Your task to perform on an android device: turn pop-ups on in chrome Image 0: 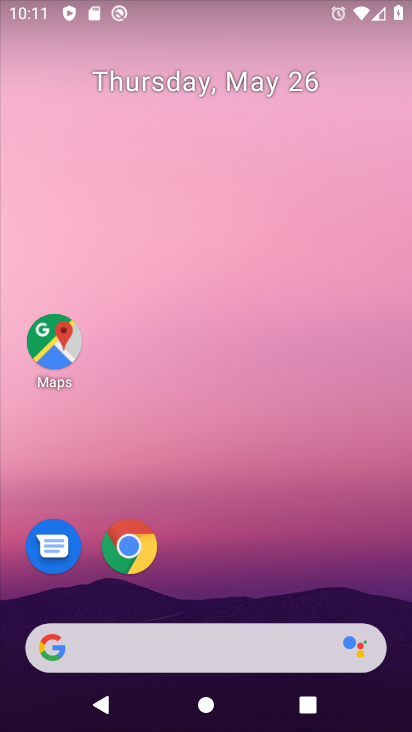
Step 0: click (131, 546)
Your task to perform on an android device: turn pop-ups on in chrome Image 1: 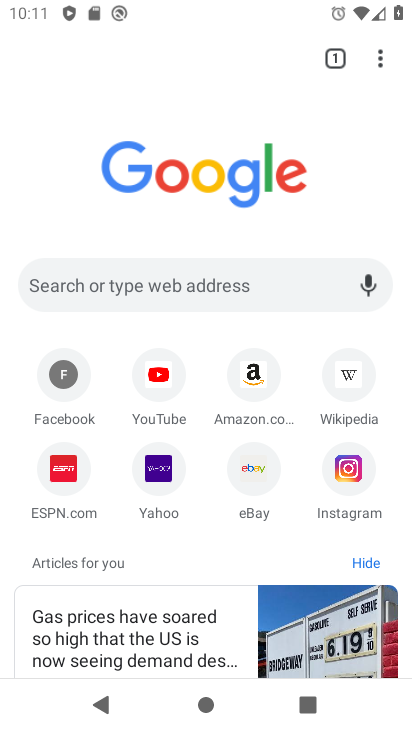
Step 1: click (381, 55)
Your task to perform on an android device: turn pop-ups on in chrome Image 2: 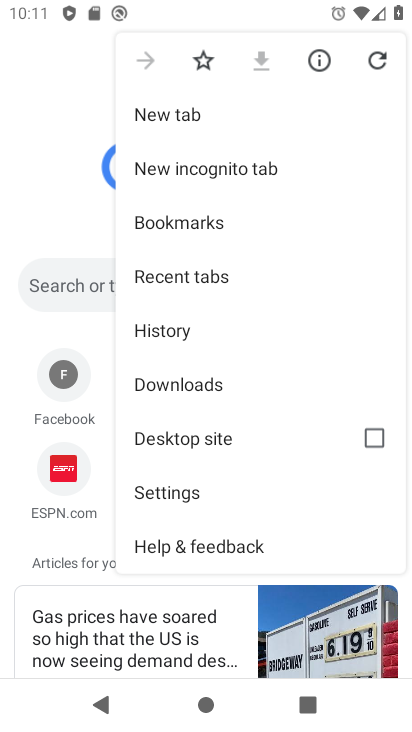
Step 2: click (165, 496)
Your task to perform on an android device: turn pop-ups on in chrome Image 3: 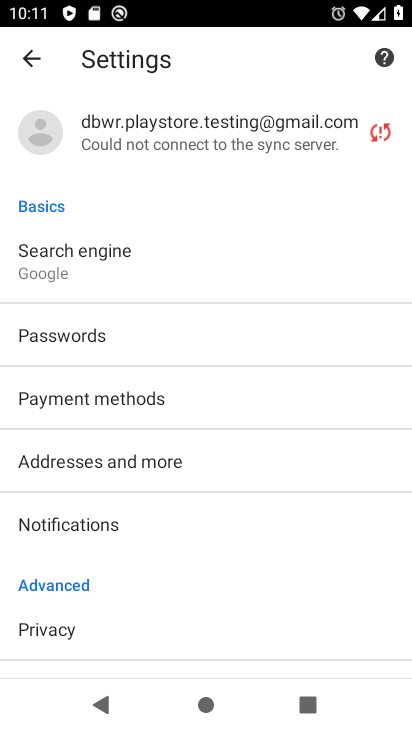
Step 3: drag from (182, 593) to (246, 478)
Your task to perform on an android device: turn pop-ups on in chrome Image 4: 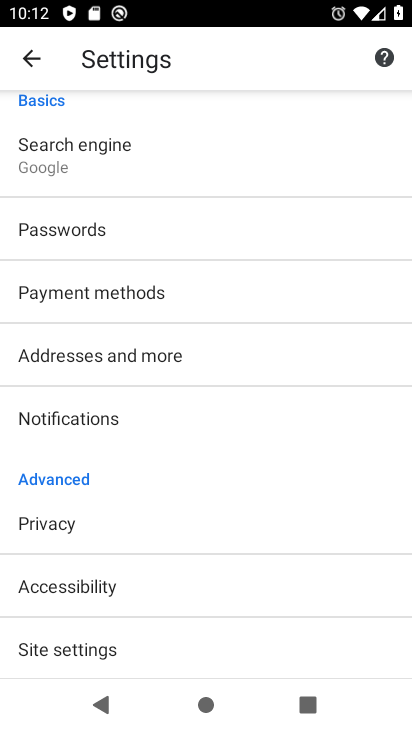
Step 4: drag from (168, 613) to (257, 511)
Your task to perform on an android device: turn pop-ups on in chrome Image 5: 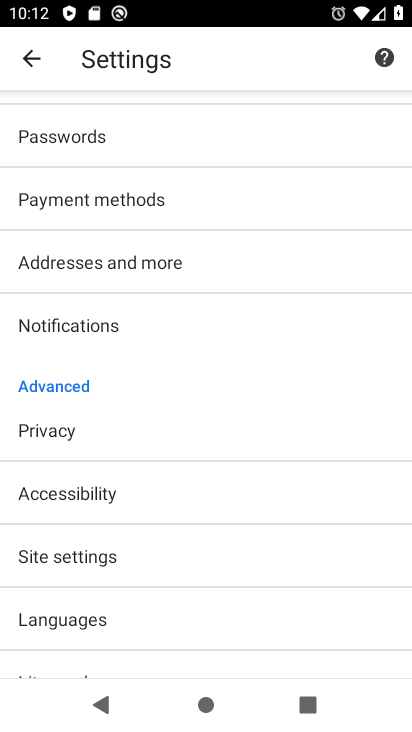
Step 5: click (88, 567)
Your task to perform on an android device: turn pop-ups on in chrome Image 6: 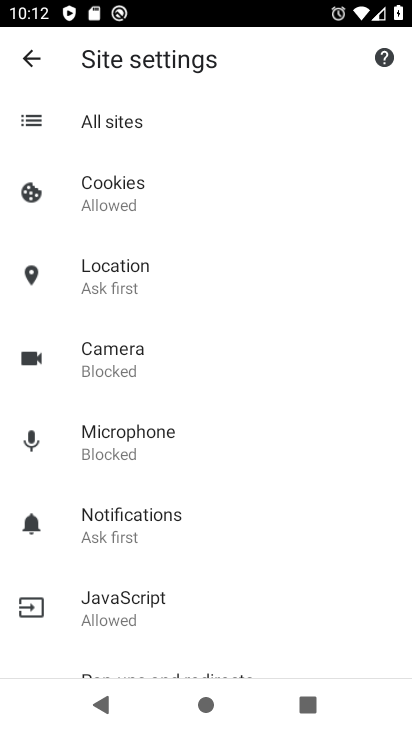
Step 6: drag from (143, 545) to (203, 467)
Your task to perform on an android device: turn pop-ups on in chrome Image 7: 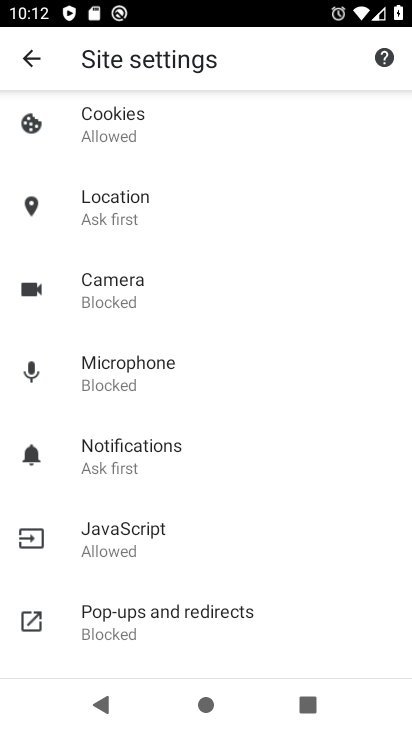
Step 7: drag from (121, 568) to (216, 466)
Your task to perform on an android device: turn pop-ups on in chrome Image 8: 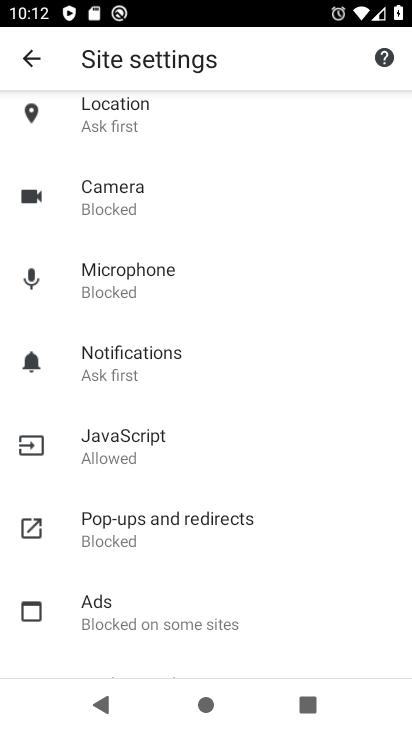
Step 8: click (182, 510)
Your task to perform on an android device: turn pop-ups on in chrome Image 9: 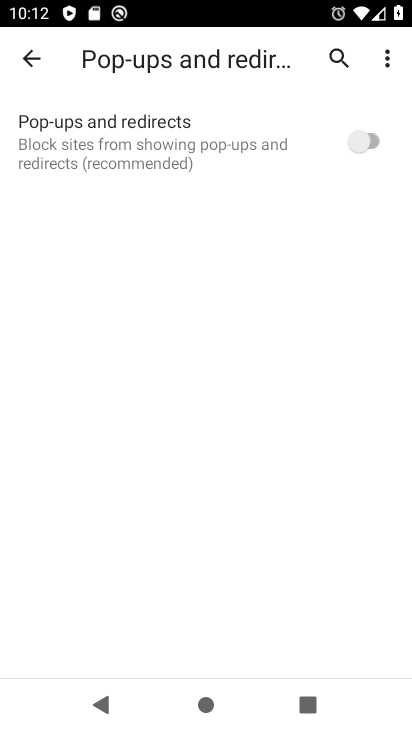
Step 9: click (385, 139)
Your task to perform on an android device: turn pop-ups on in chrome Image 10: 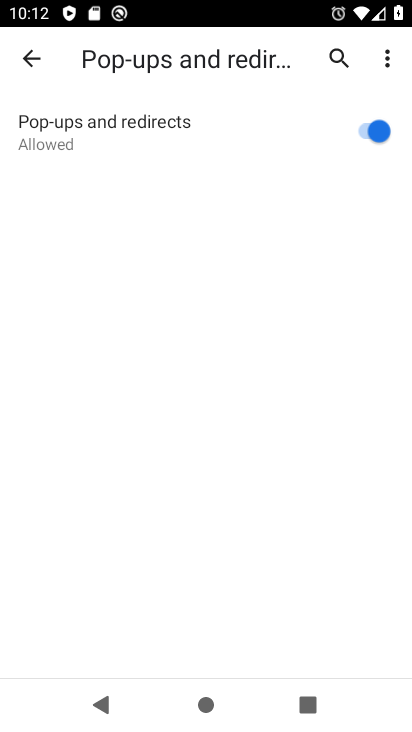
Step 10: task complete